Your task to perform on an android device: Do I have any events this weekend? Image 0: 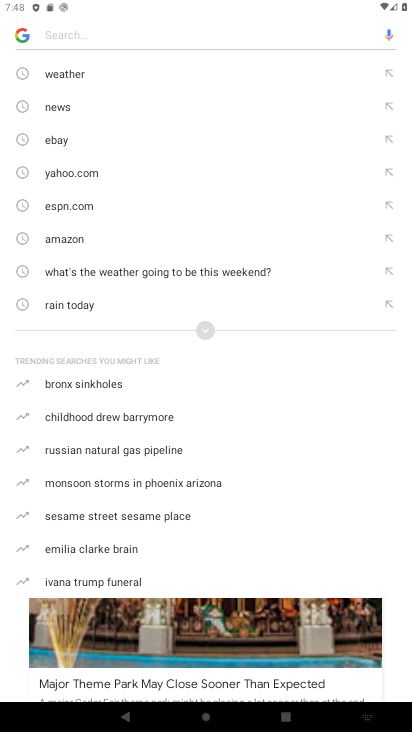
Step 0: press home button
Your task to perform on an android device: Do I have any events this weekend? Image 1: 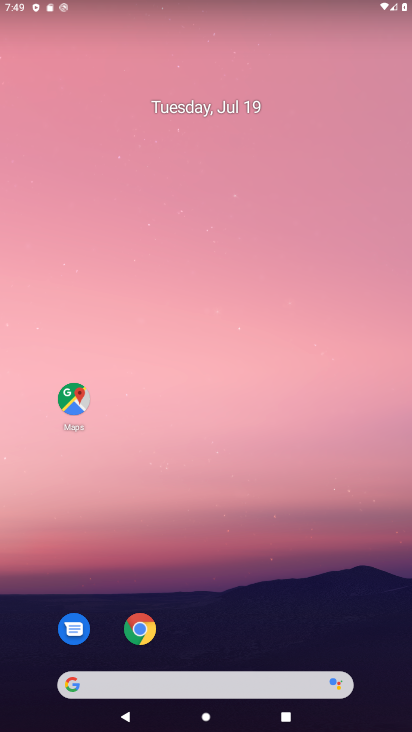
Step 1: drag from (237, 719) to (180, 55)
Your task to perform on an android device: Do I have any events this weekend? Image 2: 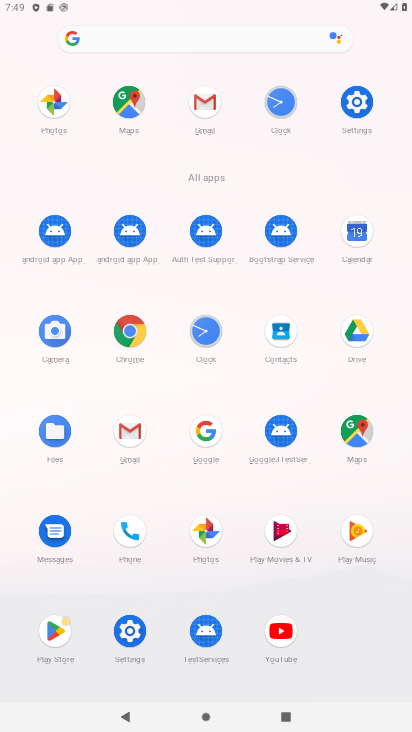
Step 2: click (363, 228)
Your task to perform on an android device: Do I have any events this weekend? Image 3: 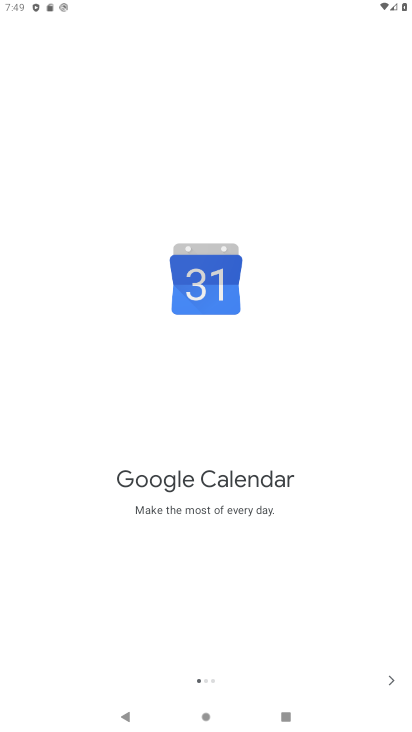
Step 3: click (392, 676)
Your task to perform on an android device: Do I have any events this weekend? Image 4: 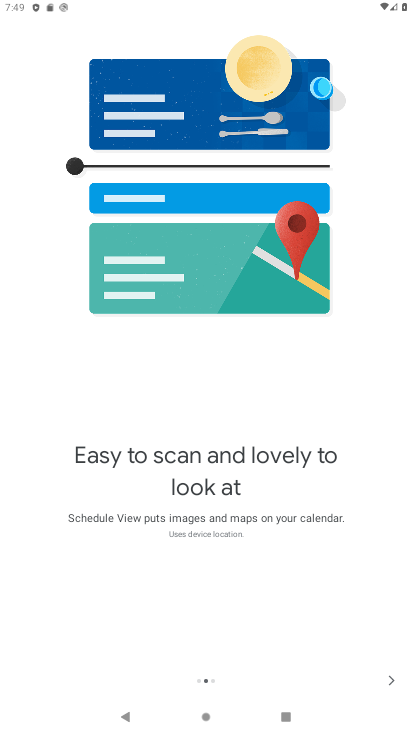
Step 4: click (392, 676)
Your task to perform on an android device: Do I have any events this weekend? Image 5: 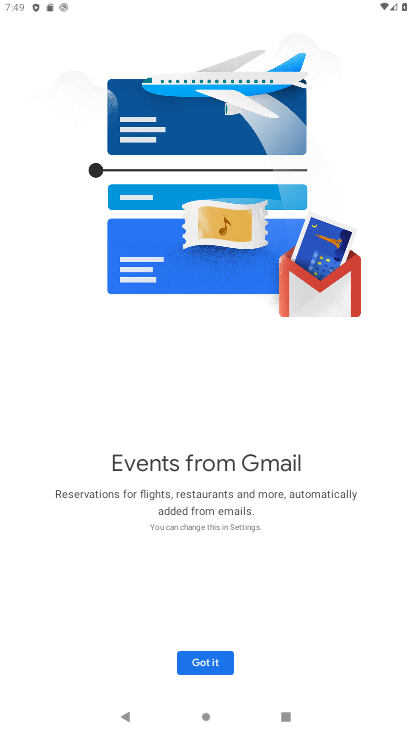
Step 5: click (207, 670)
Your task to perform on an android device: Do I have any events this weekend? Image 6: 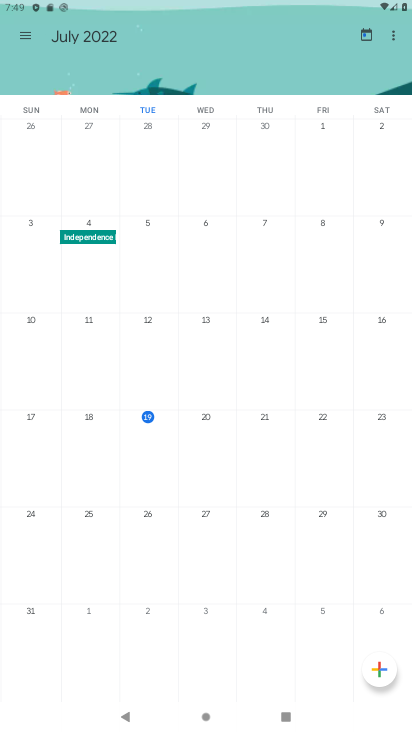
Step 6: click (383, 413)
Your task to perform on an android device: Do I have any events this weekend? Image 7: 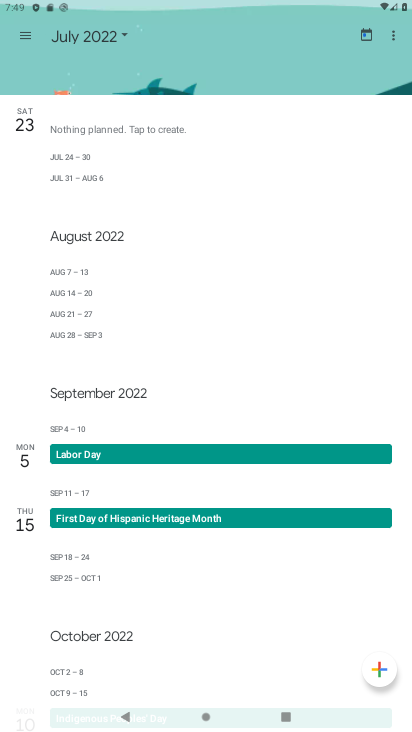
Step 7: click (23, 40)
Your task to perform on an android device: Do I have any events this weekend? Image 8: 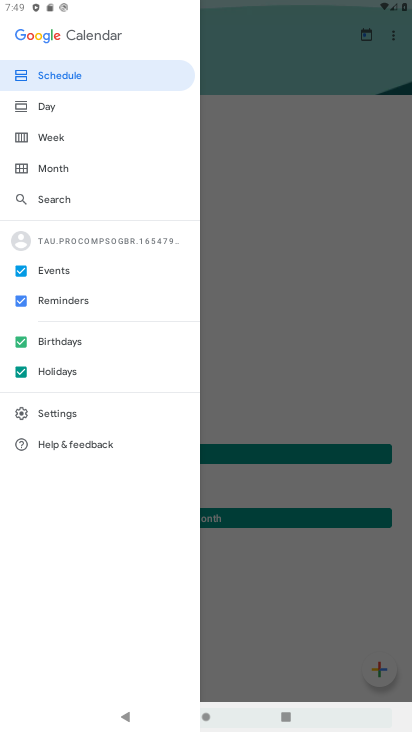
Step 8: click (23, 370)
Your task to perform on an android device: Do I have any events this weekend? Image 9: 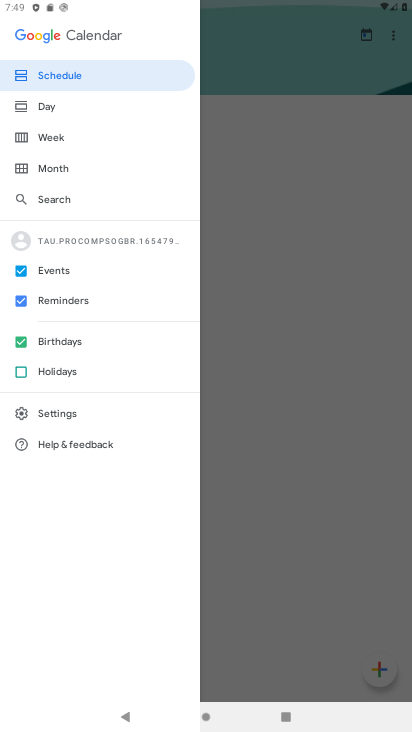
Step 9: click (21, 343)
Your task to perform on an android device: Do I have any events this weekend? Image 10: 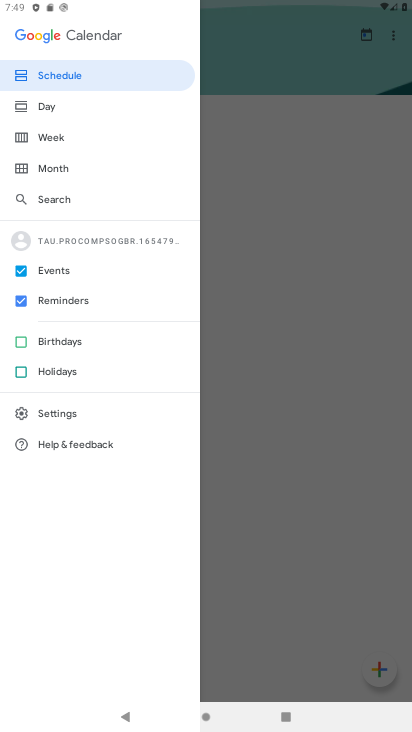
Step 10: click (23, 301)
Your task to perform on an android device: Do I have any events this weekend? Image 11: 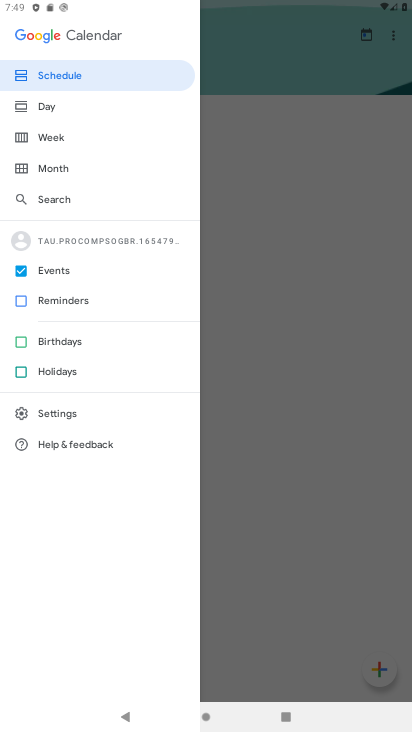
Step 11: click (263, 80)
Your task to perform on an android device: Do I have any events this weekend? Image 12: 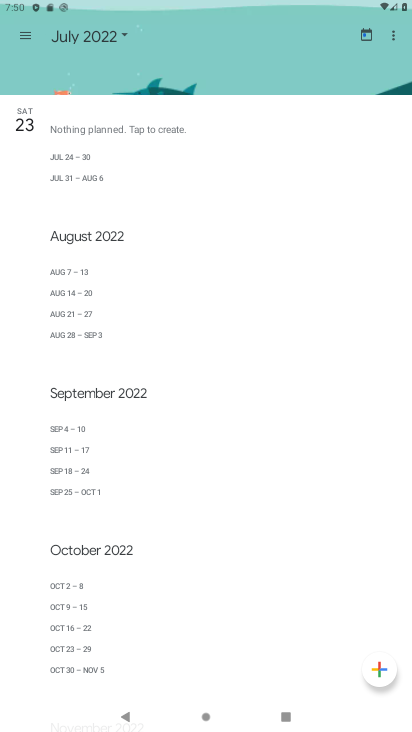
Step 12: task complete